Your task to perform on an android device: empty trash in google photos Image 0: 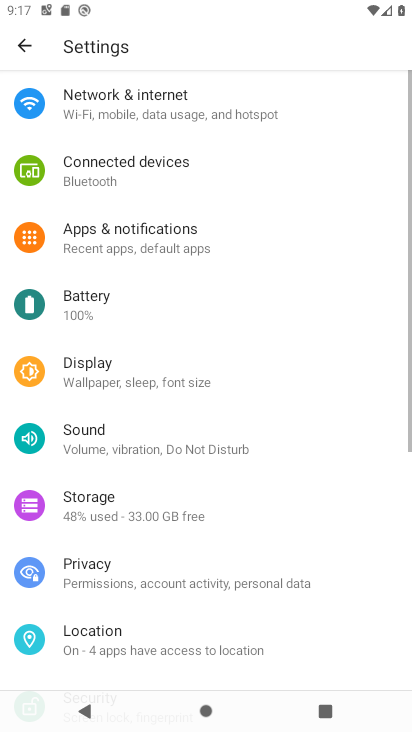
Step 0: press home button
Your task to perform on an android device: empty trash in google photos Image 1: 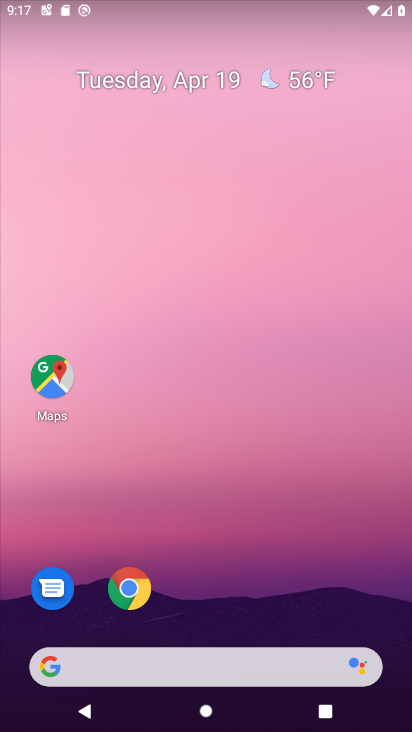
Step 1: drag from (225, 578) to (216, 2)
Your task to perform on an android device: empty trash in google photos Image 2: 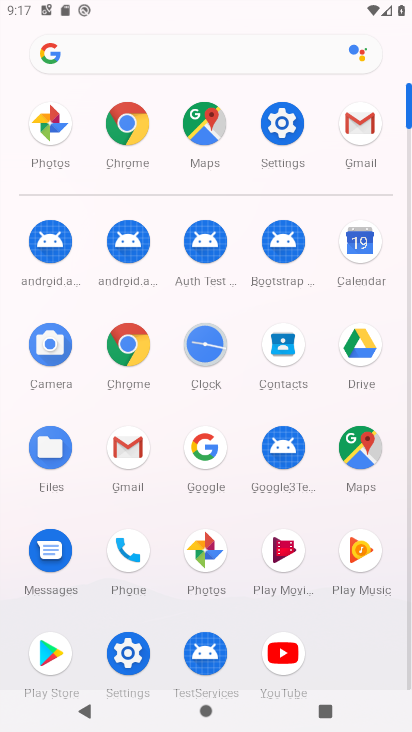
Step 2: click (49, 120)
Your task to perform on an android device: empty trash in google photos Image 3: 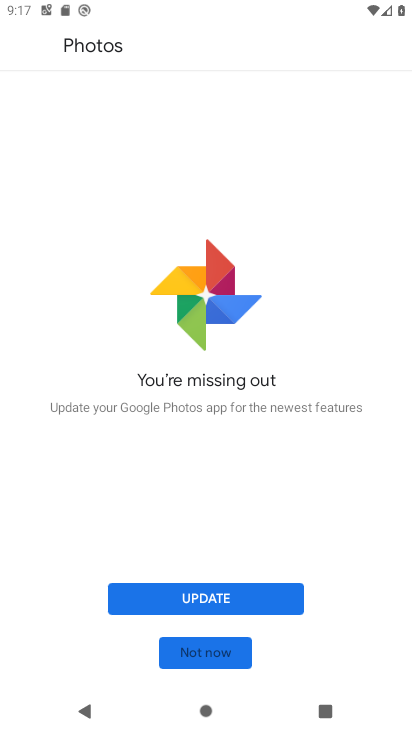
Step 3: click (208, 593)
Your task to perform on an android device: empty trash in google photos Image 4: 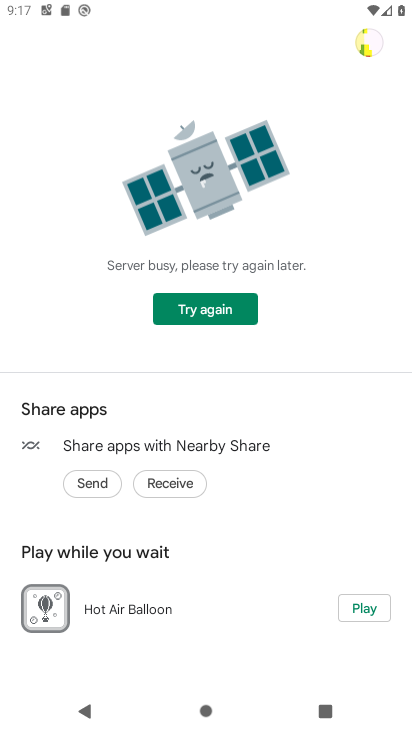
Step 4: click (201, 307)
Your task to perform on an android device: empty trash in google photos Image 5: 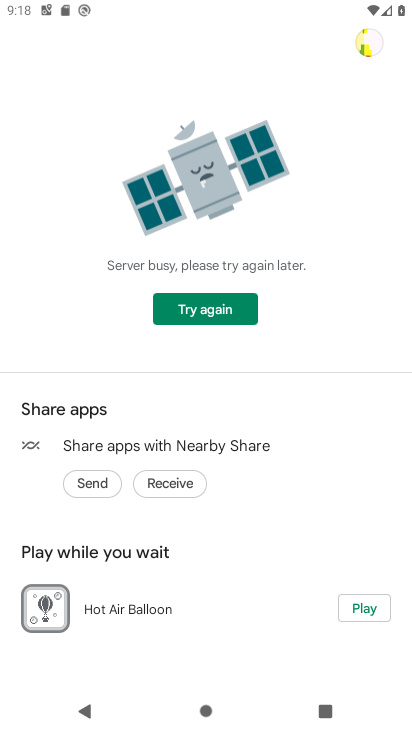
Step 5: task complete